Your task to perform on an android device: turn vacation reply on in the gmail app Image 0: 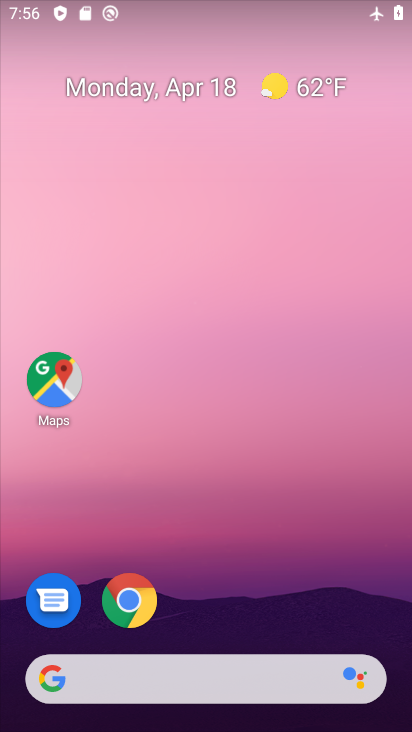
Step 0: drag from (179, 639) to (145, 19)
Your task to perform on an android device: turn vacation reply on in the gmail app Image 1: 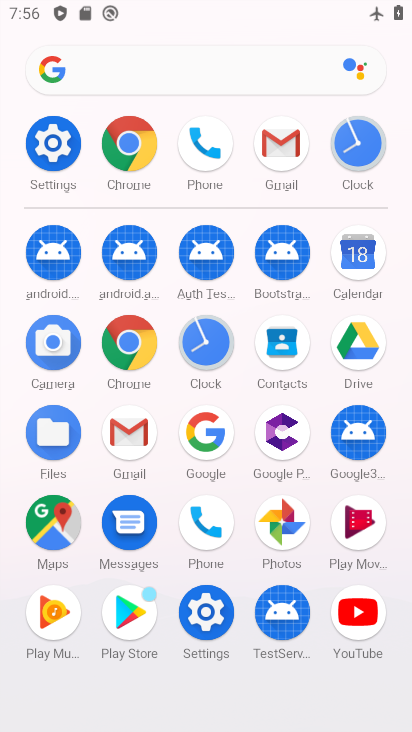
Step 1: click (119, 435)
Your task to perform on an android device: turn vacation reply on in the gmail app Image 2: 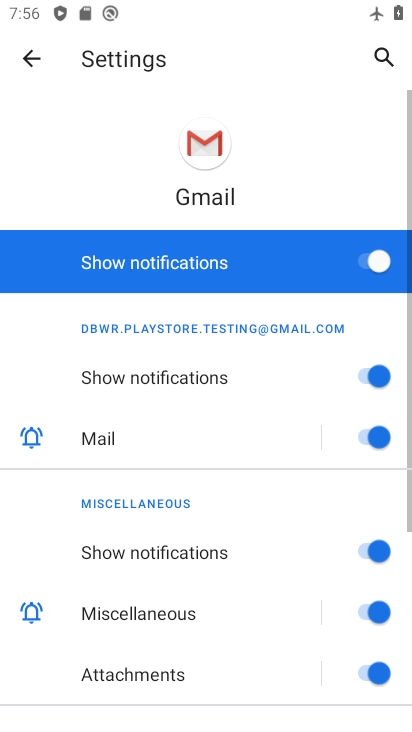
Step 2: click (39, 67)
Your task to perform on an android device: turn vacation reply on in the gmail app Image 3: 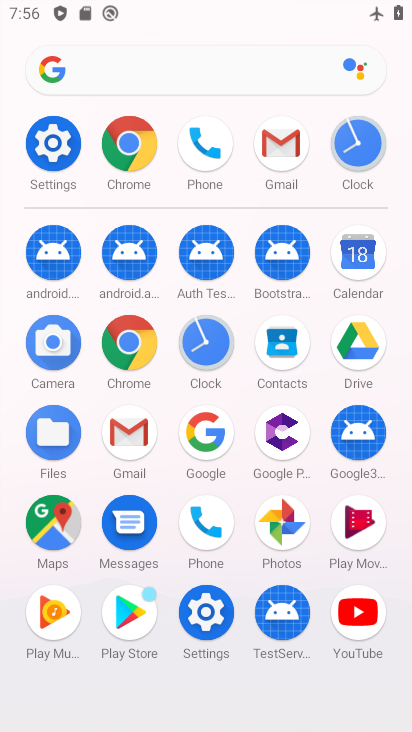
Step 3: click (134, 432)
Your task to perform on an android device: turn vacation reply on in the gmail app Image 4: 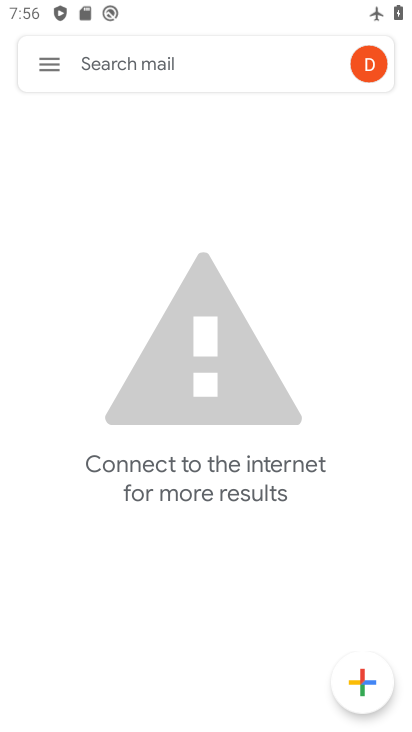
Step 4: click (45, 68)
Your task to perform on an android device: turn vacation reply on in the gmail app Image 5: 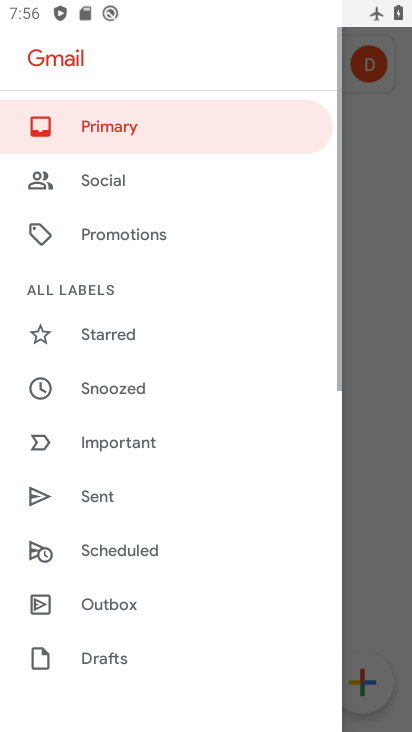
Step 5: drag from (95, 571) to (72, 21)
Your task to perform on an android device: turn vacation reply on in the gmail app Image 6: 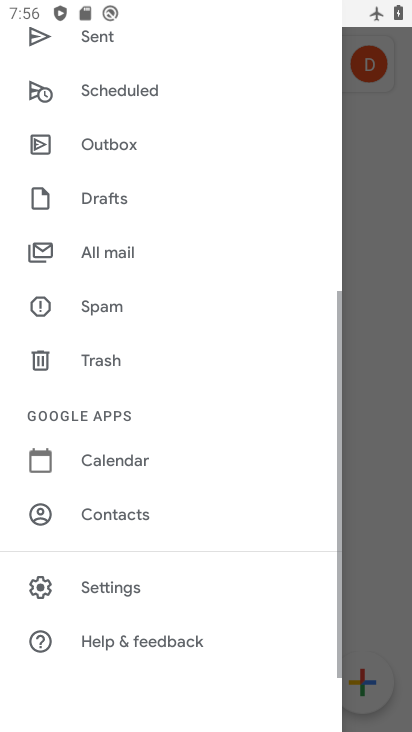
Step 6: click (85, 585)
Your task to perform on an android device: turn vacation reply on in the gmail app Image 7: 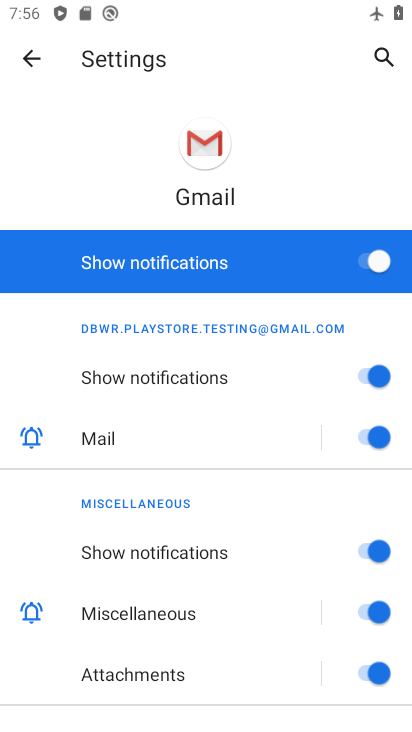
Step 7: click (20, 51)
Your task to perform on an android device: turn vacation reply on in the gmail app Image 8: 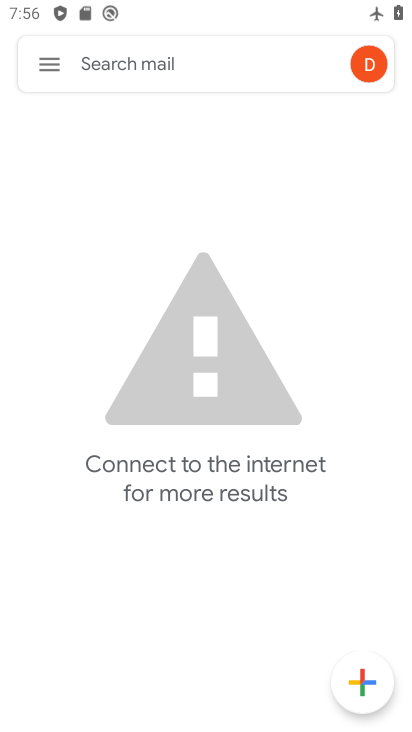
Step 8: click (31, 54)
Your task to perform on an android device: turn vacation reply on in the gmail app Image 9: 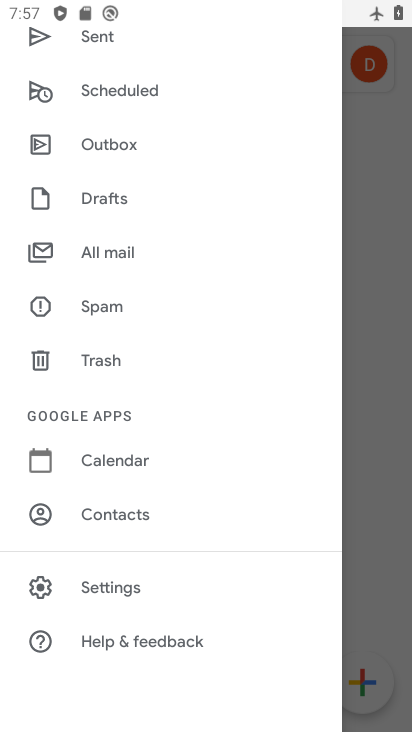
Step 9: click (118, 574)
Your task to perform on an android device: turn vacation reply on in the gmail app Image 10: 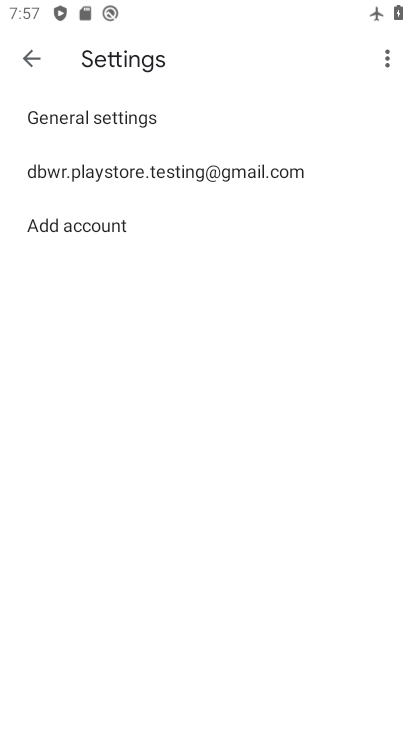
Step 10: click (66, 123)
Your task to perform on an android device: turn vacation reply on in the gmail app Image 11: 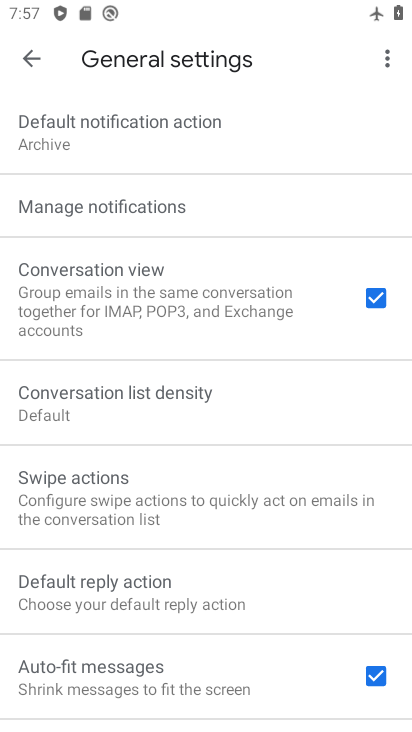
Step 11: click (28, 58)
Your task to perform on an android device: turn vacation reply on in the gmail app Image 12: 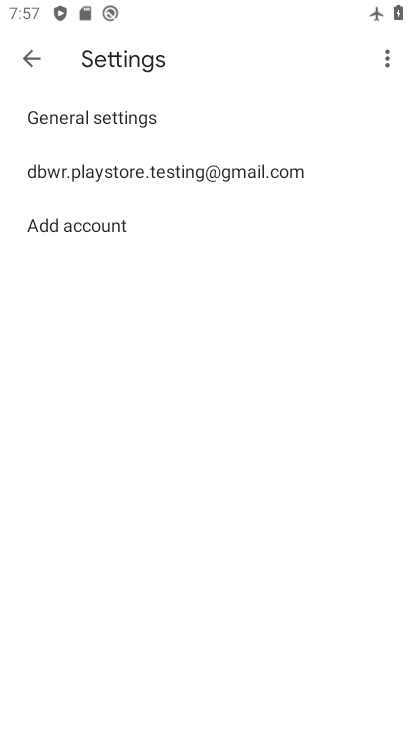
Step 12: click (72, 170)
Your task to perform on an android device: turn vacation reply on in the gmail app Image 13: 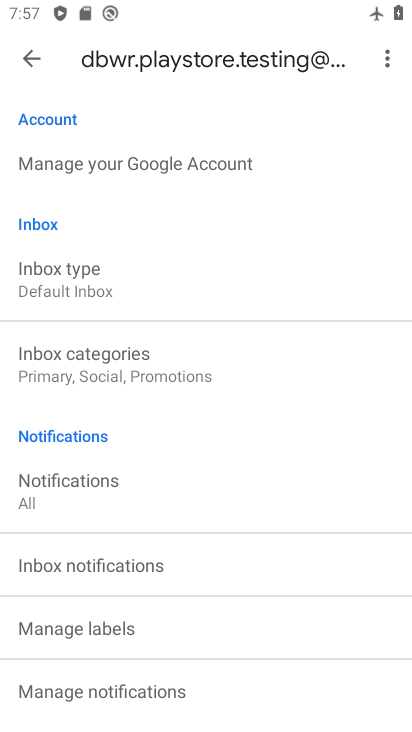
Step 13: drag from (150, 582) to (73, 48)
Your task to perform on an android device: turn vacation reply on in the gmail app Image 14: 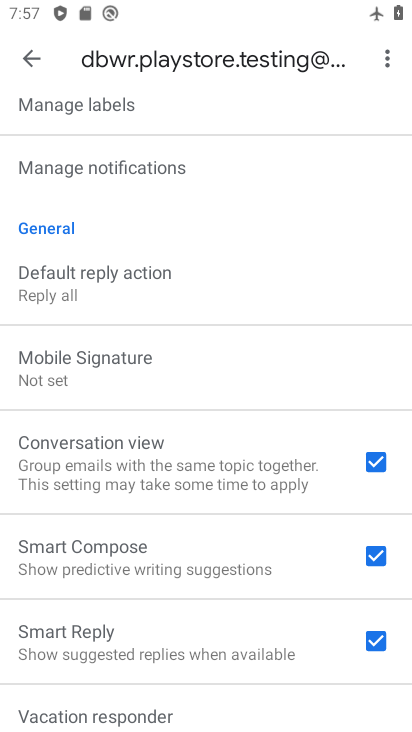
Step 14: drag from (130, 677) to (70, 167)
Your task to perform on an android device: turn vacation reply on in the gmail app Image 15: 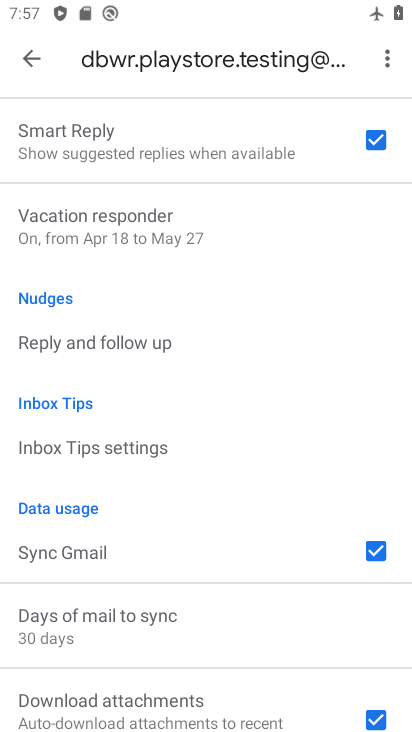
Step 15: drag from (186, 605) to (186, 446)
Your task to perform on an android device: turn vacation reply on in the gmail app Image 16: 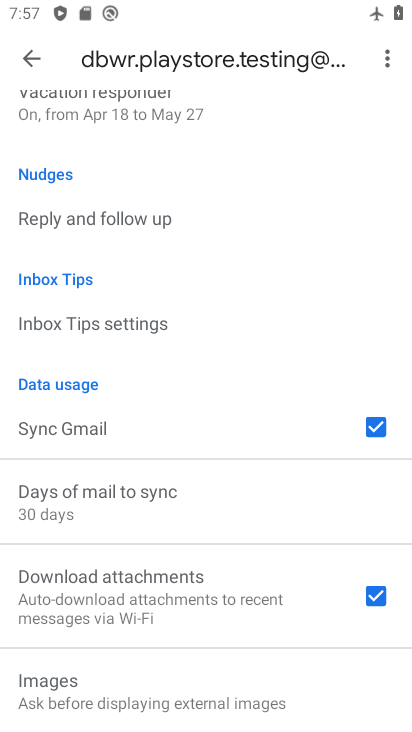
Step 16: click (149, 121)
Your task to perform on an android device: turn vacation reply on in the gmail app Image 17: 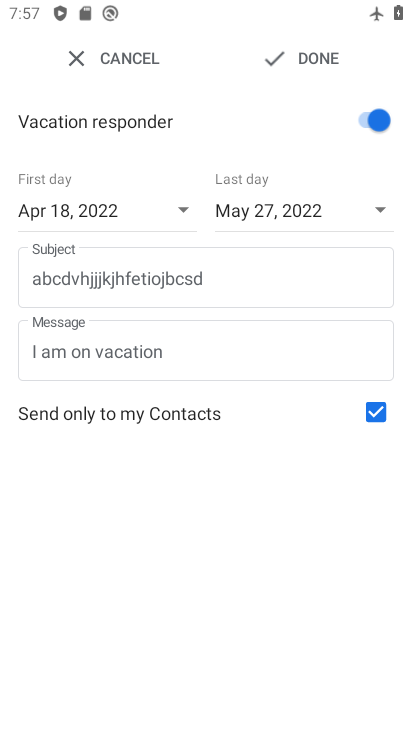
Step 17: click (327, 59)
Your task to perform on an android device: turn vacation reply on in the gmail app Image 18: 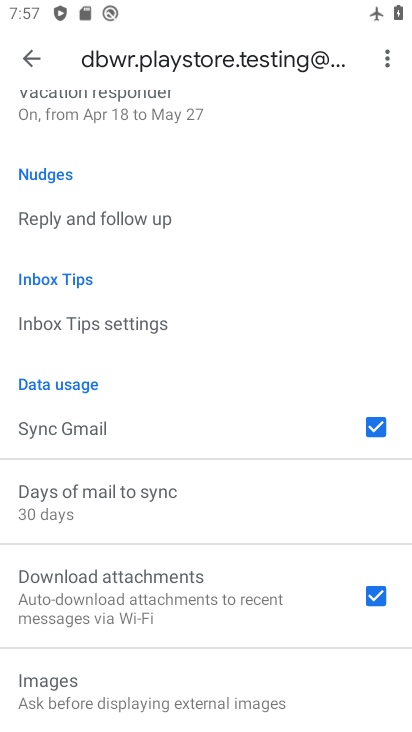
Step 18: task complete